Your task to perform on an android device: change the clock display to digital Image 0: 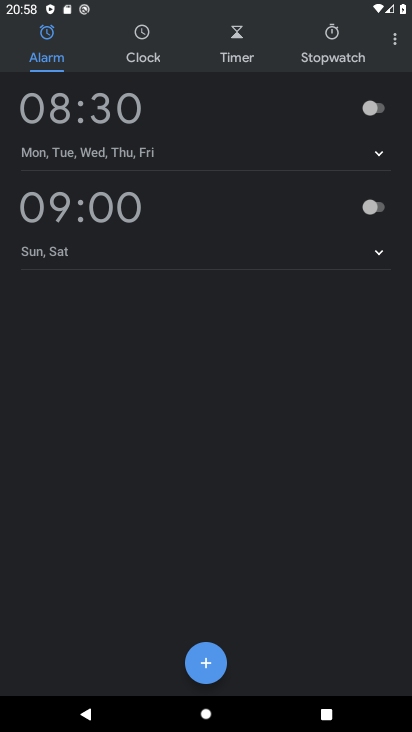
Step 0: click (392, 36)
Your task to perform on an android device: change the clock display to digital Image 1: 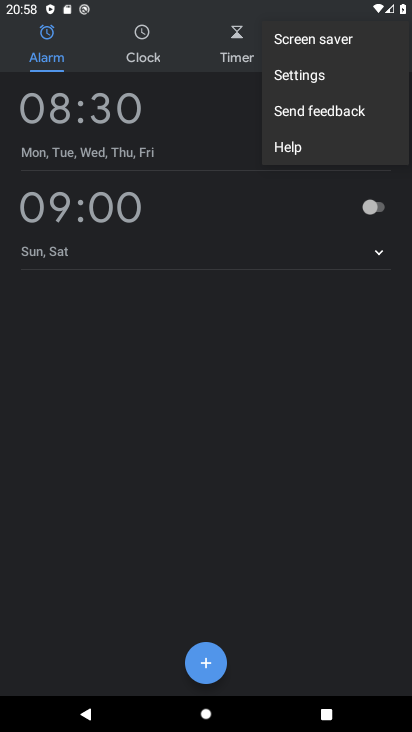
Step 1: click (316, 74)
Your task to perform on an android device: change the clock display to digital Image 2: 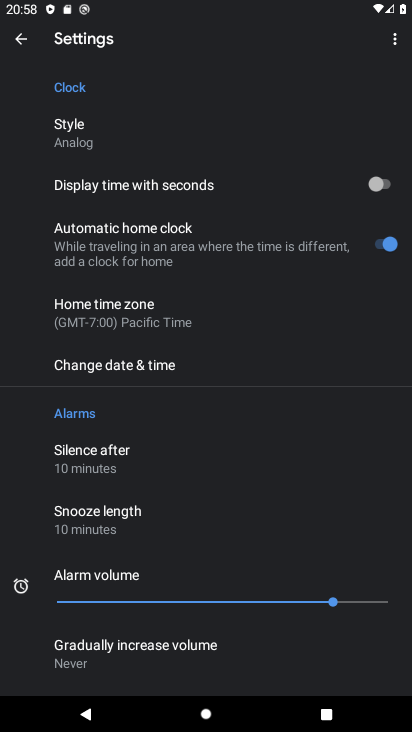
Step 2: click (137, 144)
Your task to perform on an android device: change the clock display to digital Image 3: 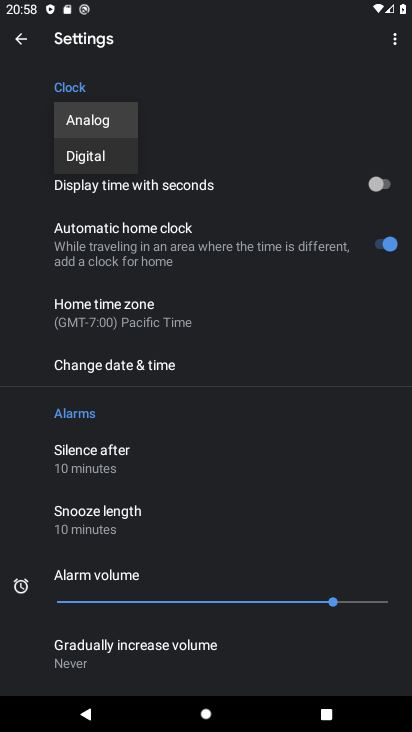
Step 3: click (114, 154)
Your task to perform on an android device: change the clock display to digital Image 4: 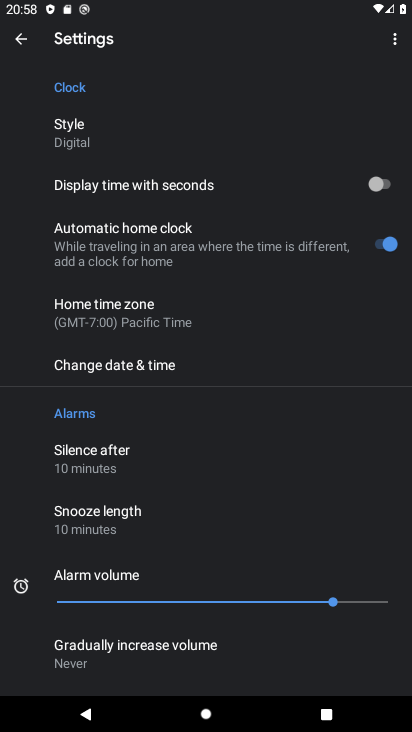
Step 4: task complete